Your task to perform on an android device: Show the shopping cart on costco.com. Search for beats solo 3 on costco.com, select the first entry, add it to the cart, then select checkout. Image 0: 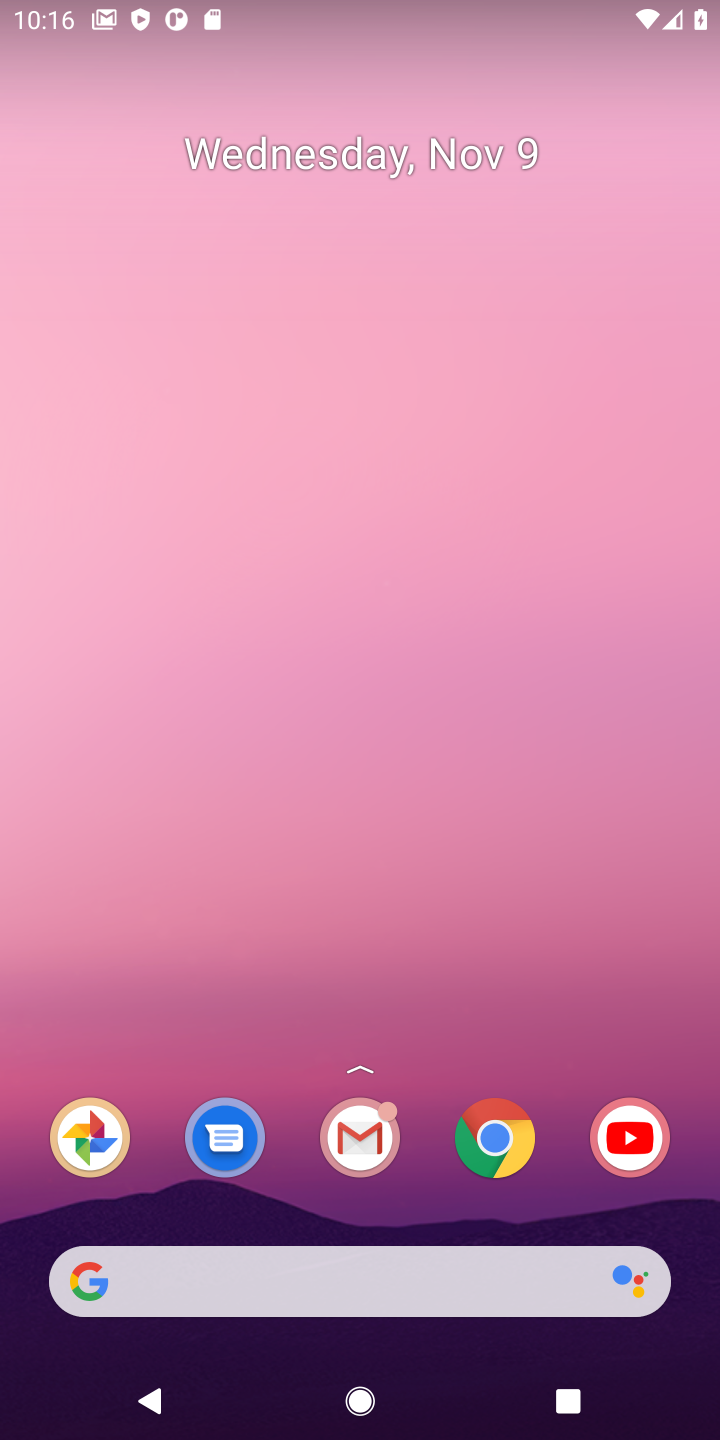
Step 0: drag from (411, 1210) to (292, 0)
Your task to perform on an android device: Show the shopping cart on costco.com. Search for beats solo 3 on costco.com, select the first entry, add it to the cart, then select checkout. Image 1: 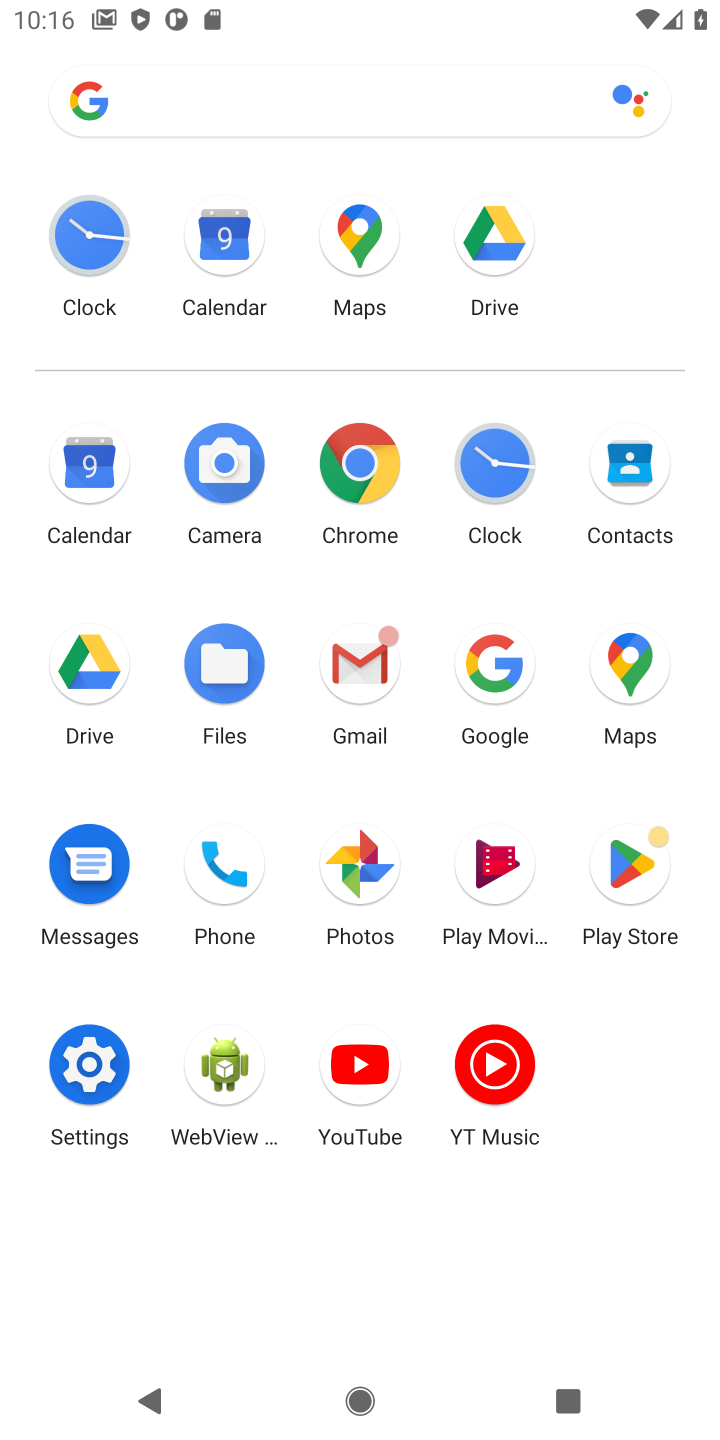
Step 1: click (360, 470)
Your task to perform on an android device: Show the shopping cart on costco.com. Search for beats solo 3 on costco.com, select the first entry, add it to the cart, then select checkout. Image 2: 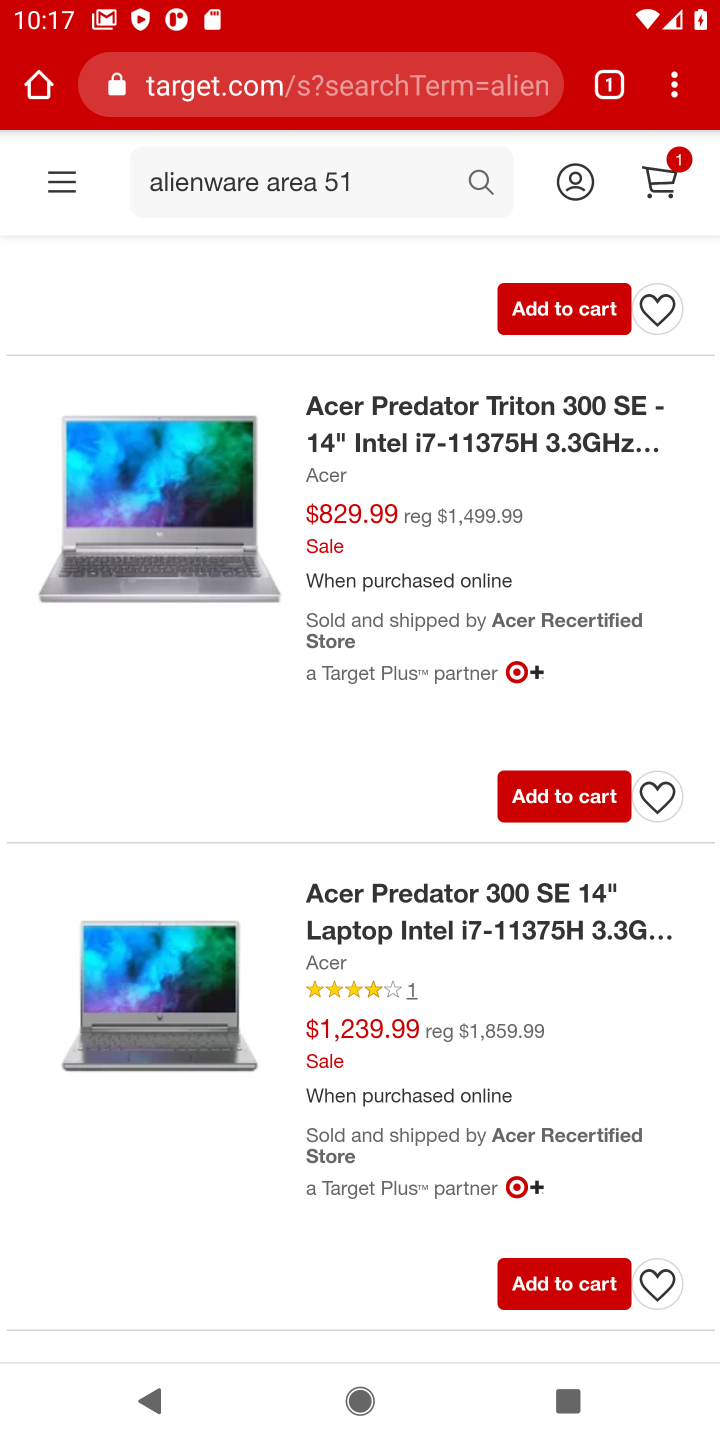
Step 2: drag from (349, 372) to (339, 925)
Your task to perform on an android device: Show the shopping cart on costco.com. Search for beats solo 3 on costco.com, select the first entry, add it to the cart, then select checkout. Image 3: 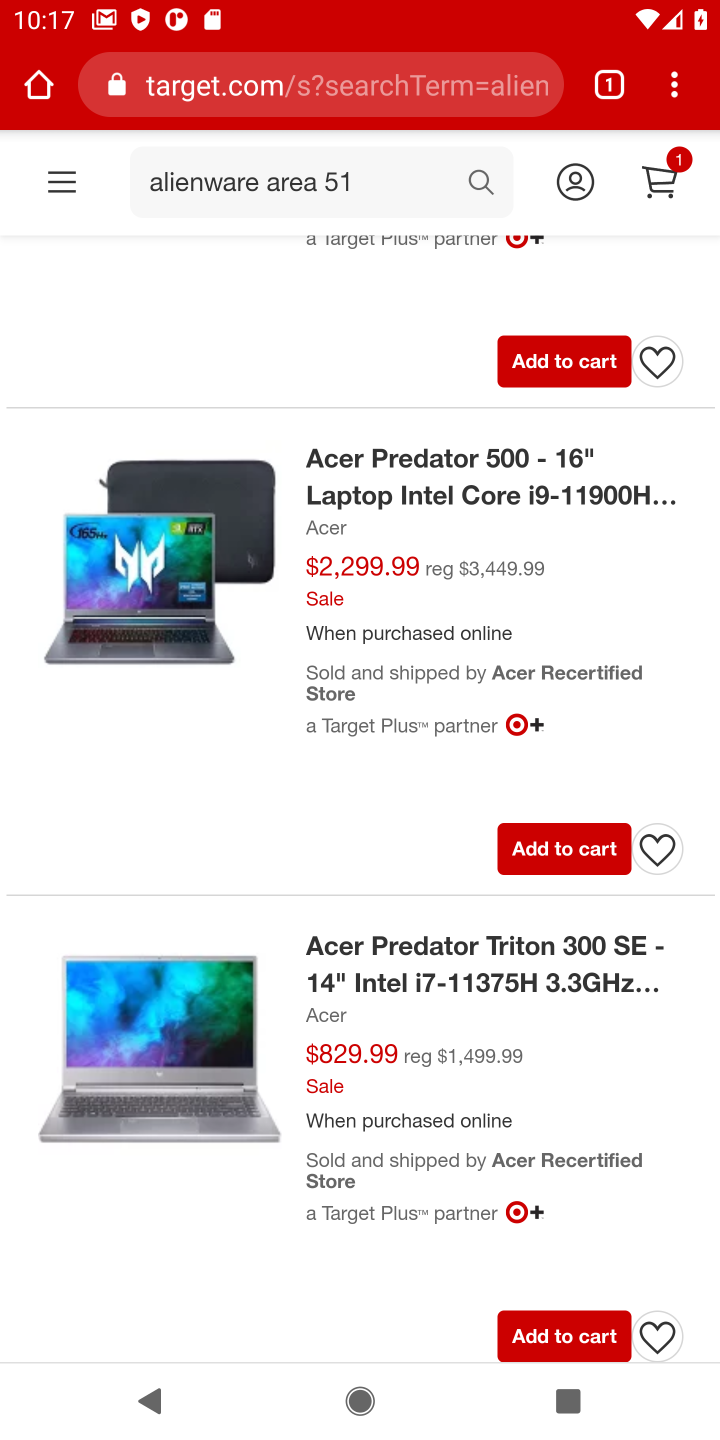
Step 3: click (461, 79)
Your task to perform on an android device: Show the shopping cart on costco.com. Search for beats solo 3 on costco.com, select the first entry, add it to the cart, then select checkout. Image 4: 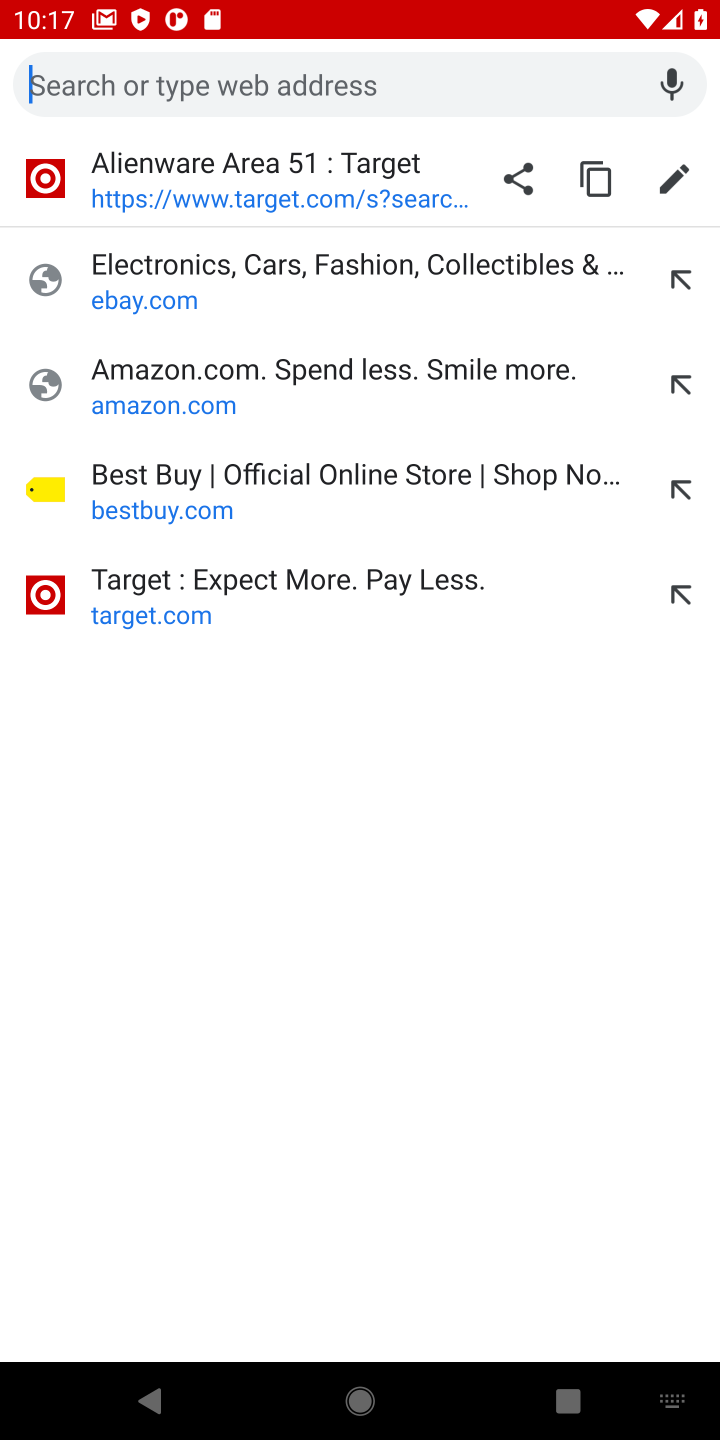
Step 4: type "costco.com"
Your task to perform on an android device: Show the shopping cart on costco.com. Search for beats solo 3 on costco.com, select the first entry, add it to the cart, then select checkout. Image 5: 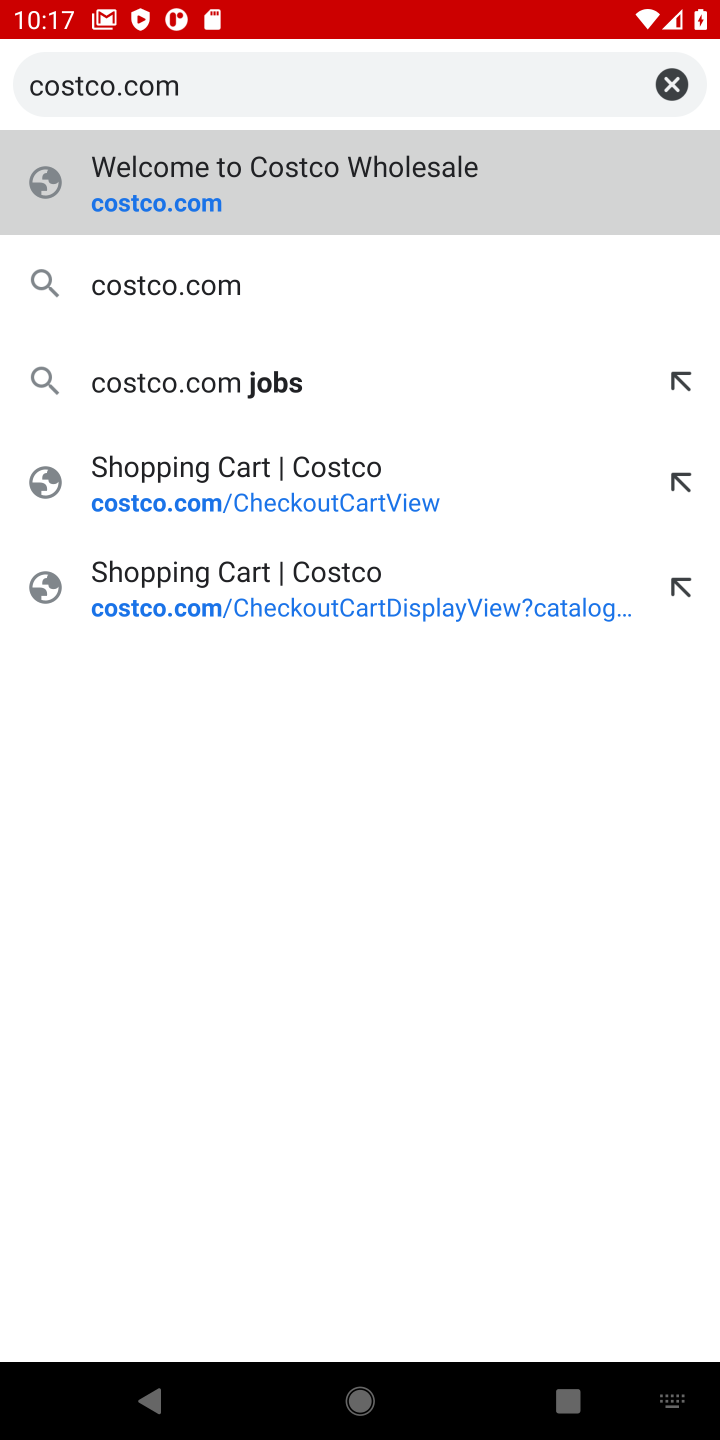
Step 5: press enter
Your task to perform on an android device: Show the shopping cart on costco.com. Search for beats solo 3 on costco.com, select the first entry, add it to the cart, then select checkout. Image 6: 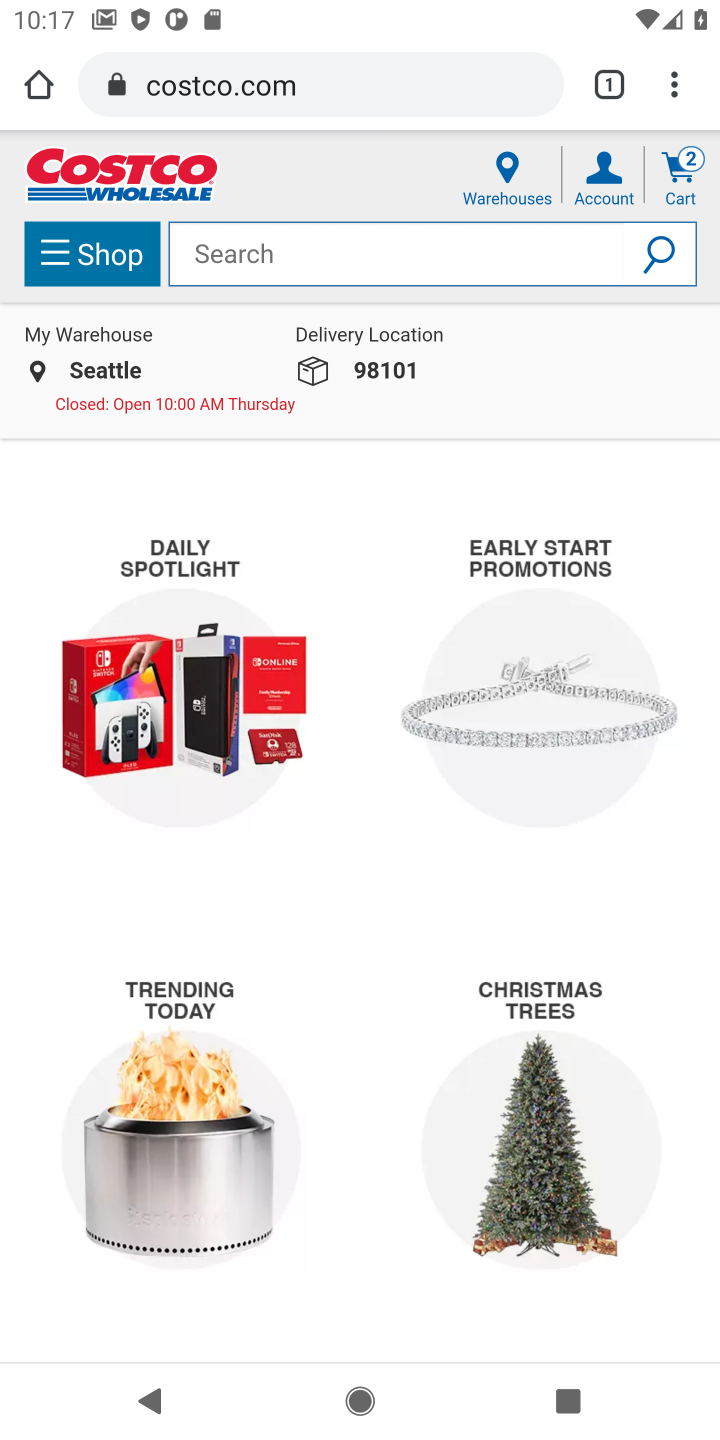
Step 6: click (676, 180)
Your task to perform on an android device: Show the shopping cart on costco.com. Search for beats solo 3 on costco.com, select the first entry, add it to the cart, then select checkout. Image 7: 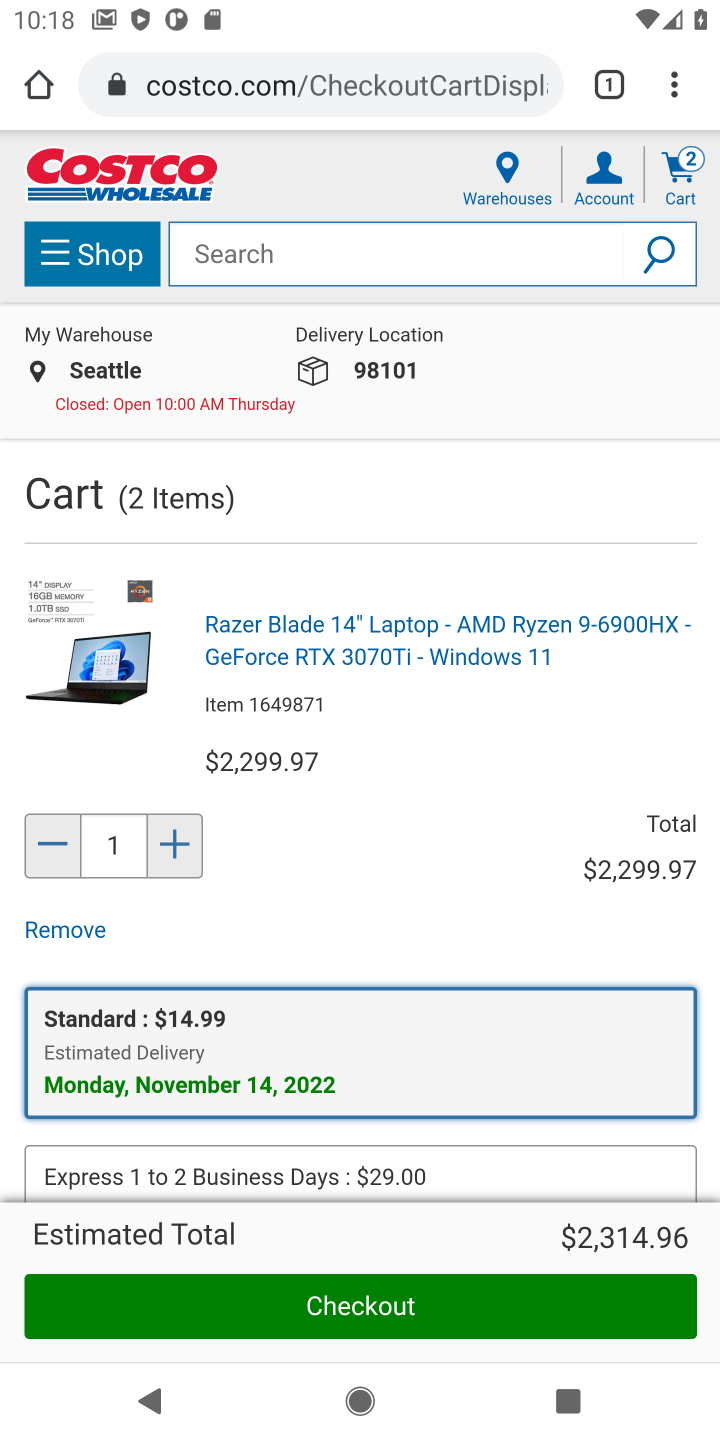
Step 7: click (362, 241)
Your task to perform on an android device: Show the shopping cart on costco.com. Search for beats solo 3 on costco.com, select the first entry, add it to the cart, then select checkout. Image 8: 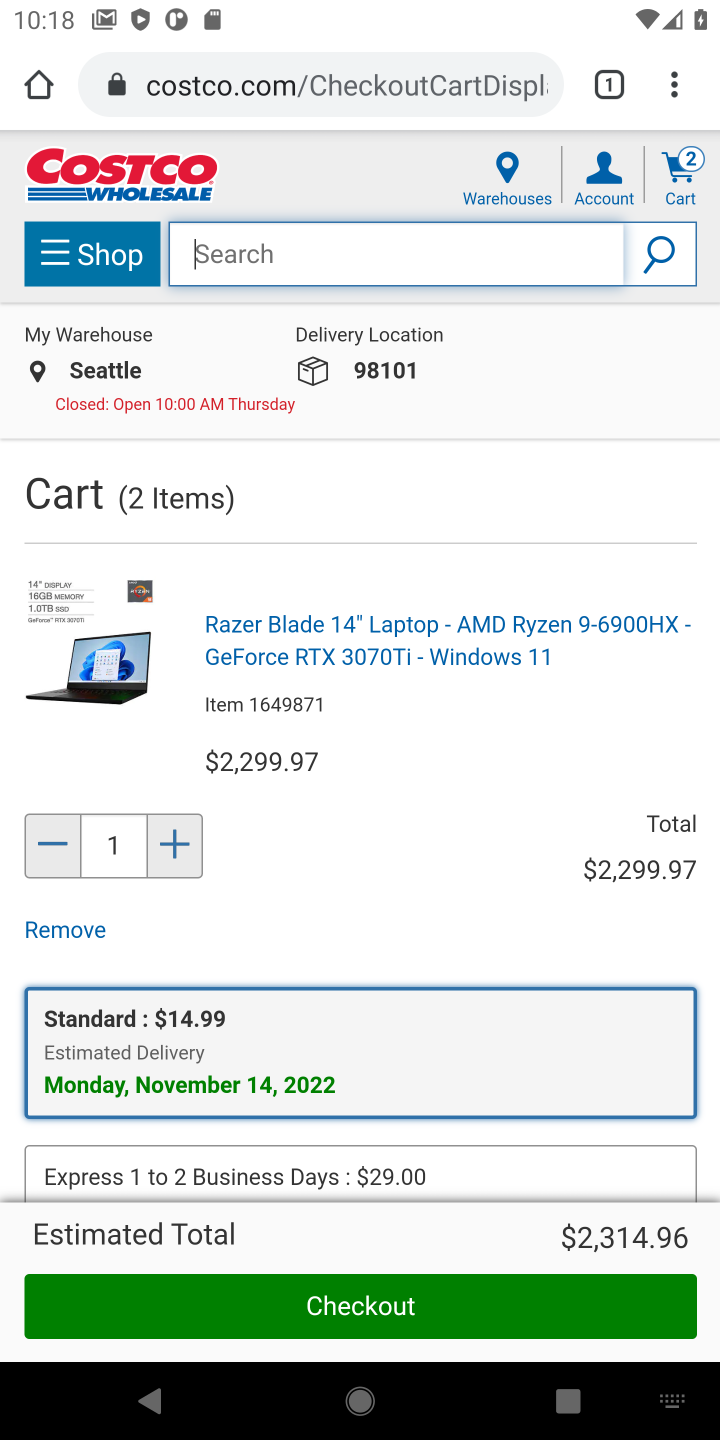
Step 8: type "beats solo 3 "
Your task to perform on an android device: Show the shopping cart on costco.com. Search for beats solo 3 on costco.com, select the first entry, add it to the cart, then select checkout. Image 9: 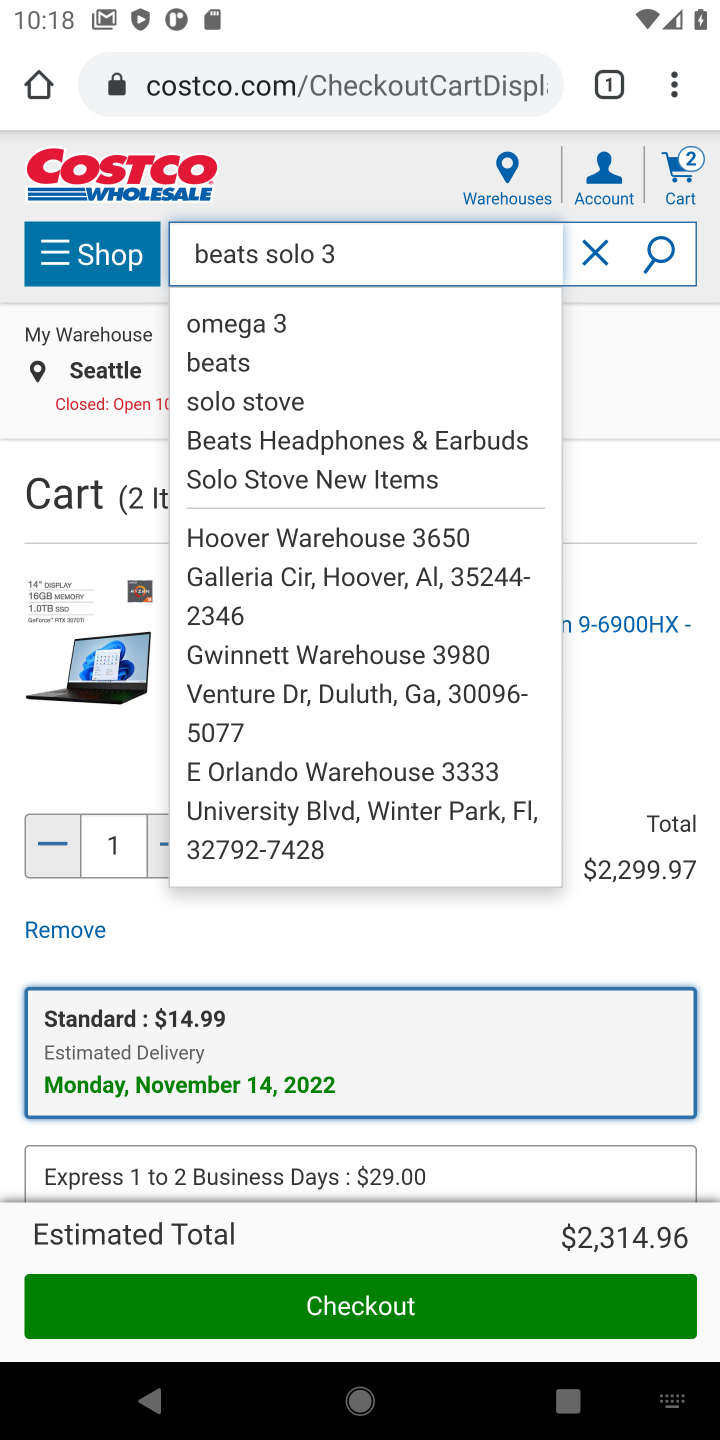
Step 9: press enter
Your task to perform on an android device: Show the shopping cart on costco.com. Search for beats solo 3 on costco.com, select the first entry, add it to the cart, then select checkout. Image 10: 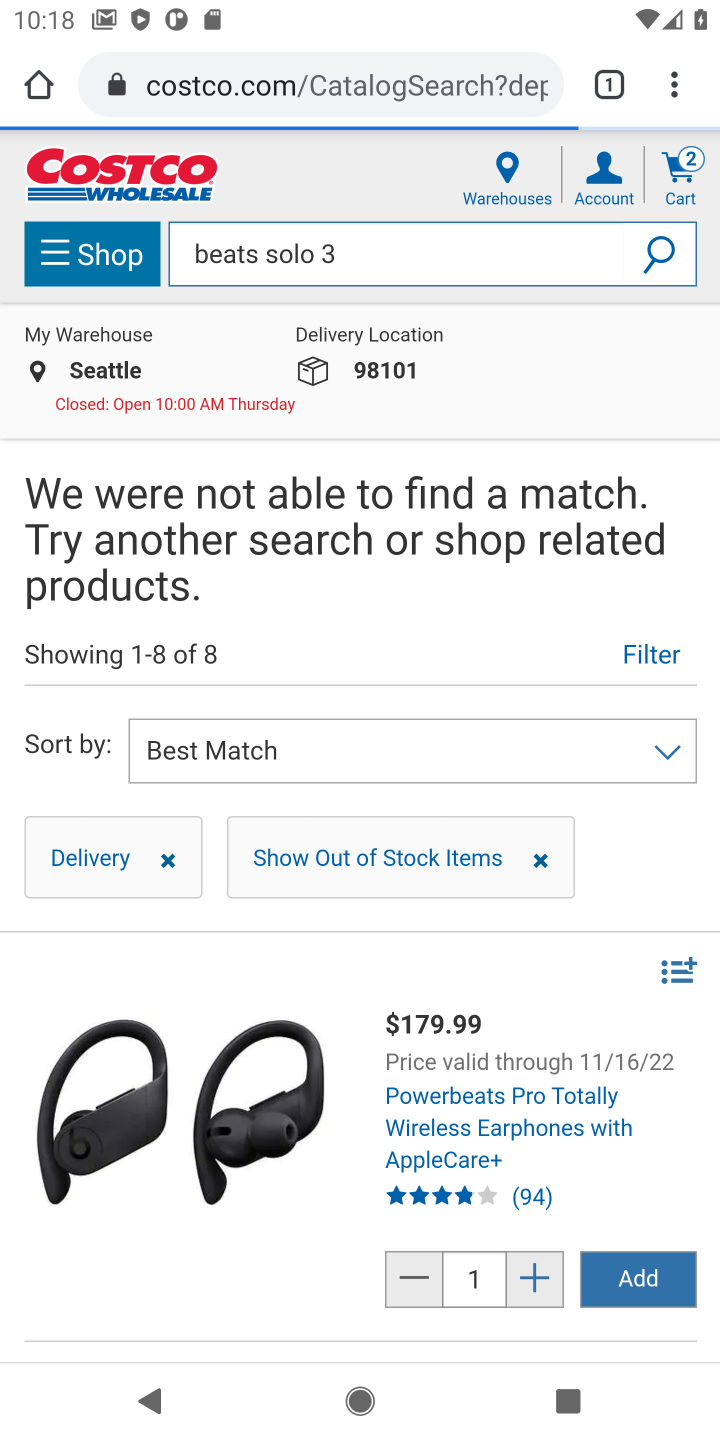
Step 10: task complete